Your task to perform on an android device: Open Google Chrome and click the shortcut for Amazon.com Image 0: 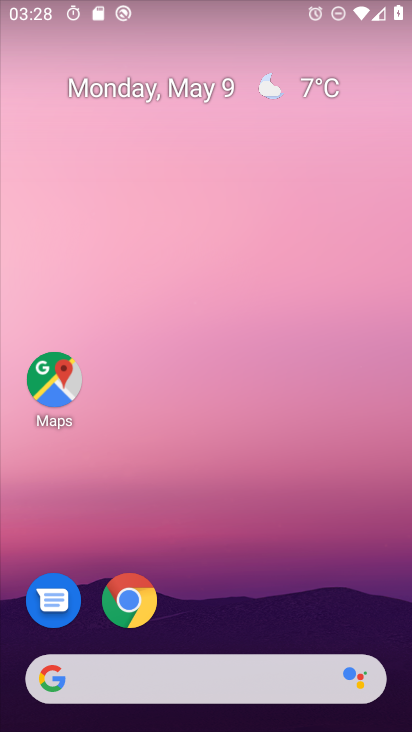
Step 0: click (141, 595)
Your task to perform on an android device: Open Google Chrome and click the shortcut for Amazon.com Image 1: 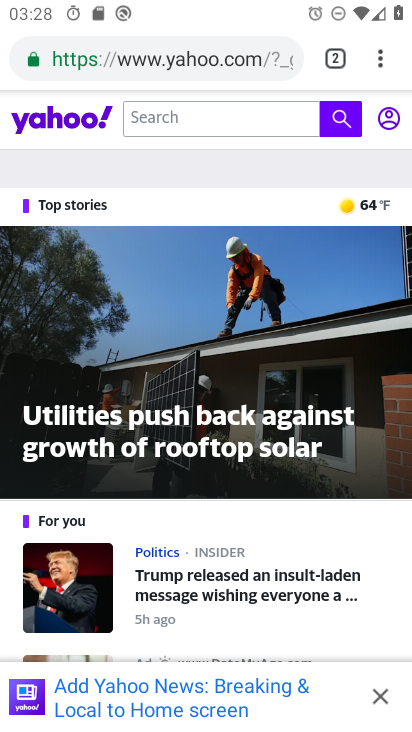
Step 1: click (380, 51)
Your task to perform on an android device: Open Google Chrome and click the shortcut for Amazon.com Image 2: 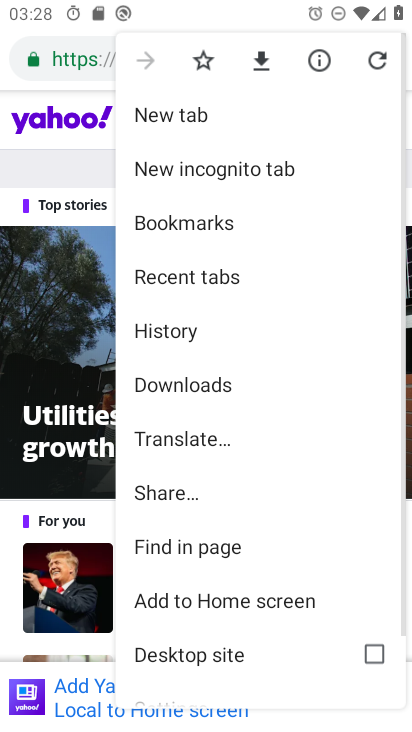
Step 2: click (179, 105)
Your task to perform on an android device: Open Google Chrome and click the shortcut for Amazon.com Image 3: 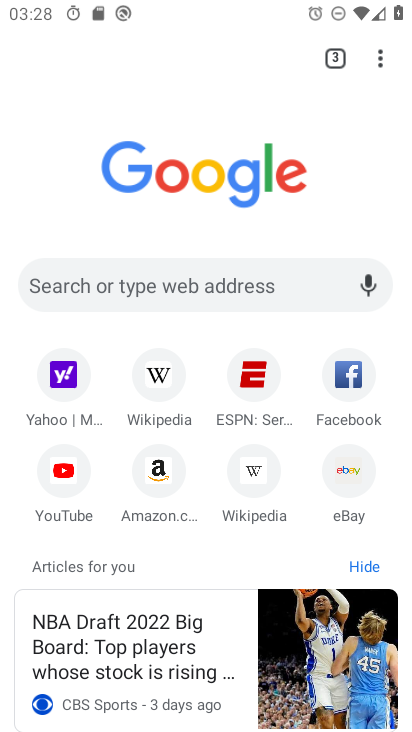
Step 3: click (166, 470)
Your task to perform on an android device: Open Google Chrome and click the shortcut for Amazon.com Image 4: 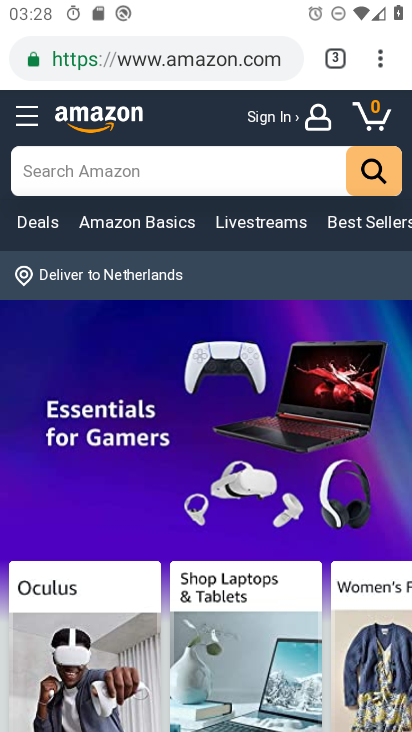
Step 4: task complete